Your task to perform on an android device: see sites visited before in the chrome app Image 0: 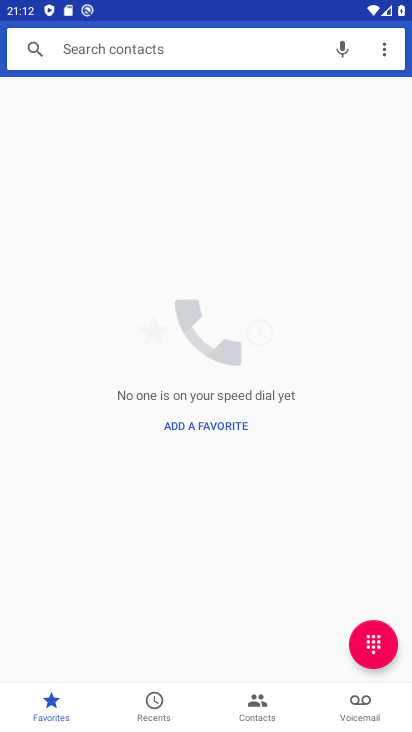
Step 0: press home button
Your task to perform on an android device: see sites visited before in the chrome app Image 1: 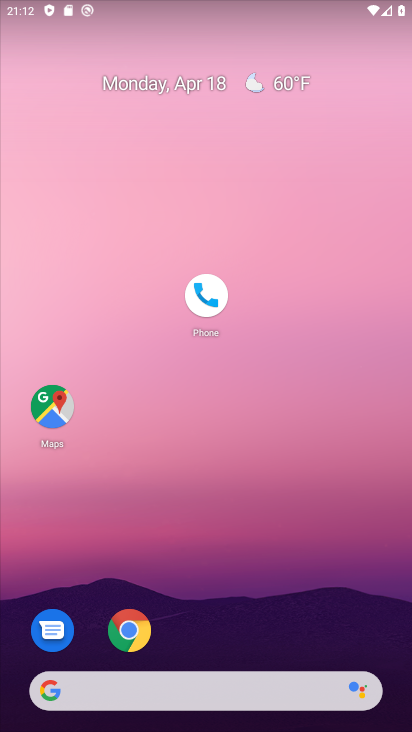
Step 1: click (130, 623)
Your task to perform on an android device: see sites visited before in the chrome app Image 2: 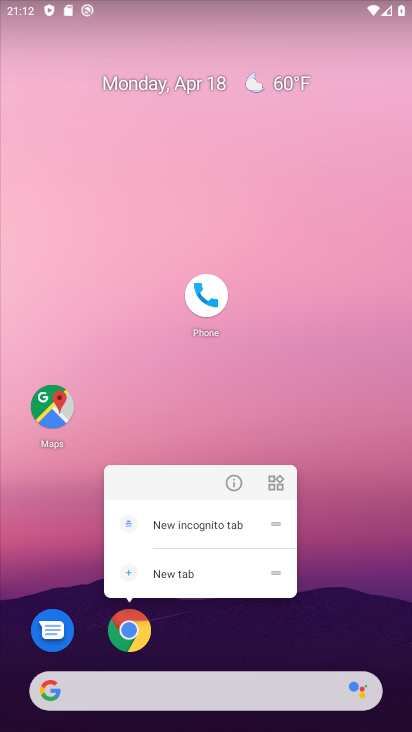
Step 2: drag from (335, 584) to (336, 186)
Your task to perform on an android device: see sites visited before in the chrome app Image 3: 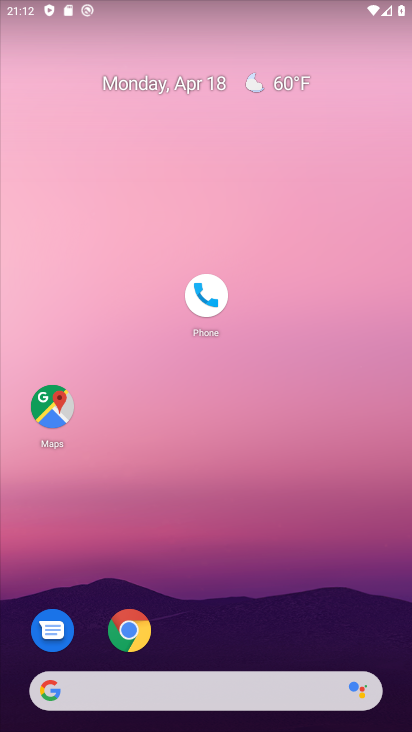
Step 3: drag from (275, 555) to (241, 47)
Your task to perform on an android device: see sites visited before in the chrome app Image 4: 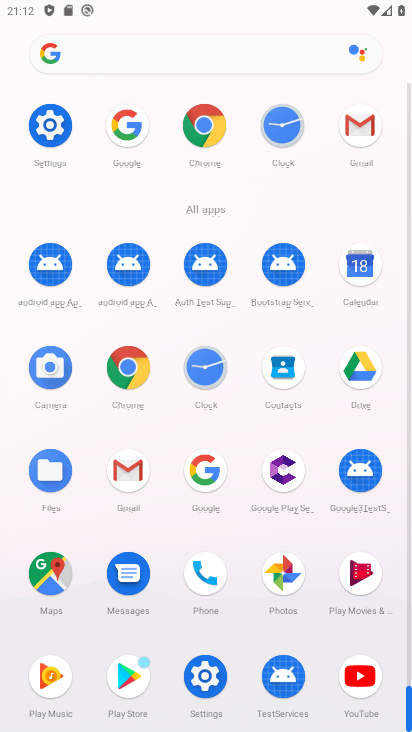
Step 4: click (127, 364)
Your task to perform on an android device: see sites visited before in the chrome app Image 5: 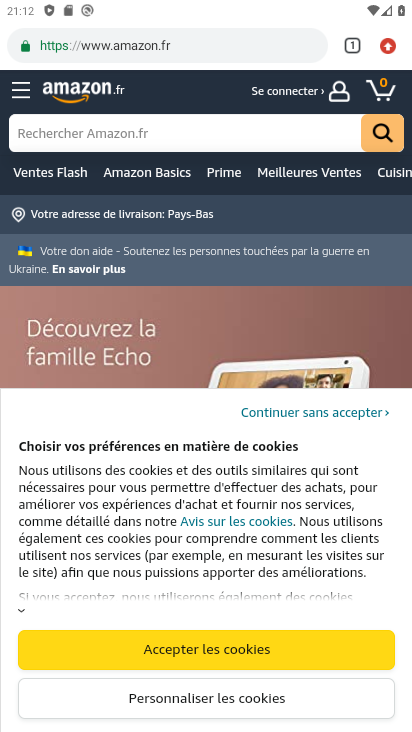
Step 5: click (390, 46)
Your task to perform on an android device: see sites visited before in the chrome app Image 6: 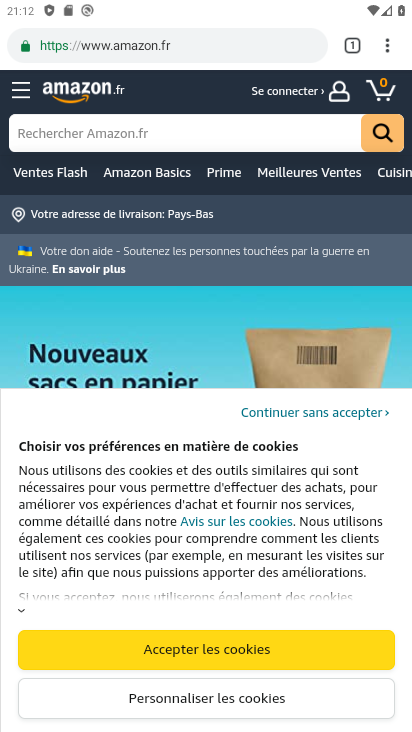
Step 6: click (390, 46)
Your task to perform on an android device: see sites visited before in the chrome app Image 7: 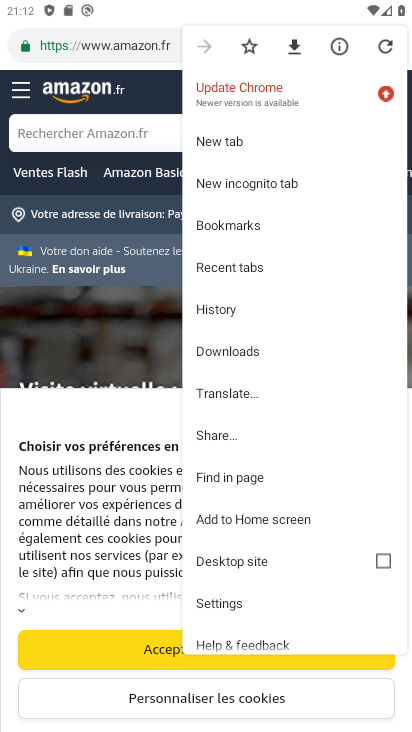
Step 7: click (234, 306)
Your task to perform on an android device: see sites visited before in the chrome app Image 8: 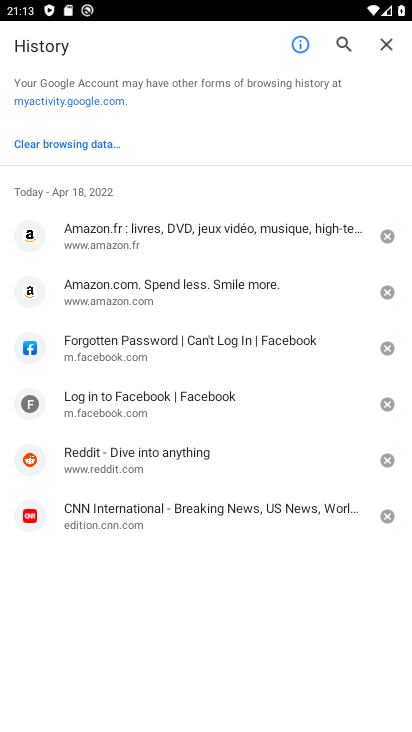
Step 8: task complete